Your task to perform on an android device: turn on wifi Image 0: 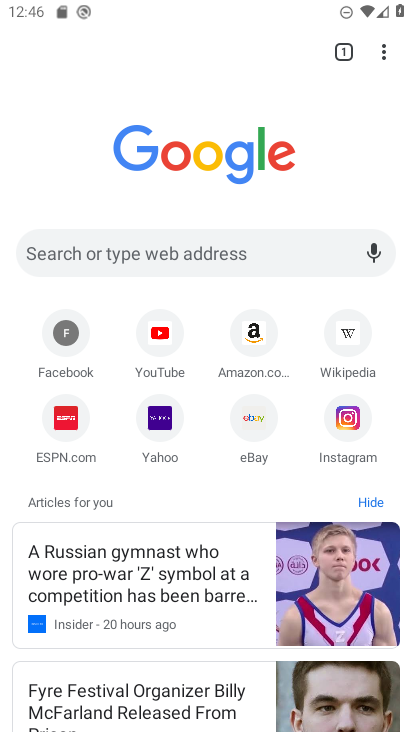
Step 0: press home button
Your task to perform on an android device: turn on wifi Image 1: 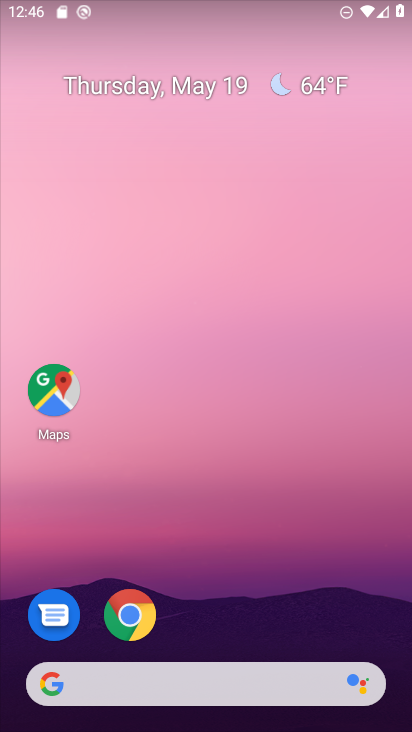
Step 1: drag from (228, 720) to (310, 80)
Your task to perform on an android device: turn on wifi Image 2: 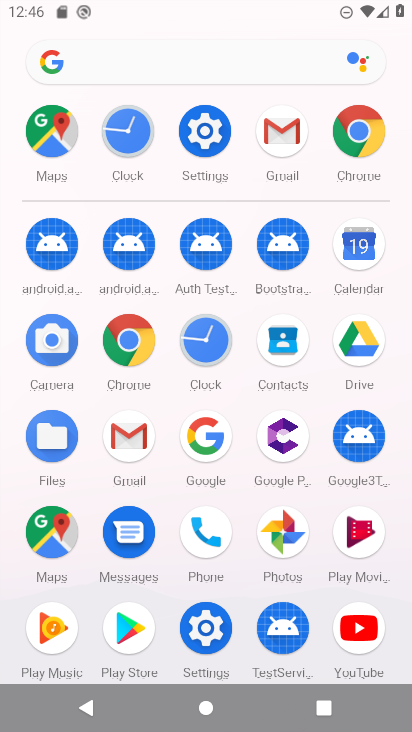
Step 2: click (214, 125)
Your task to perform on an android device: turn on wifi Image 3: 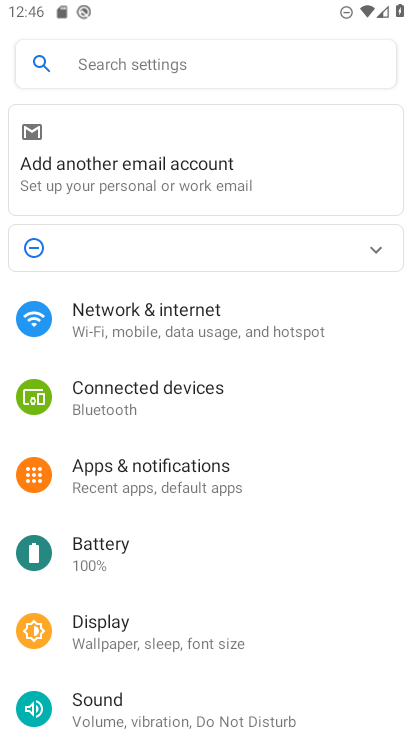
Step 3: click (144, 326)
Your task to perform on an android device: turn on wifi Image 4: 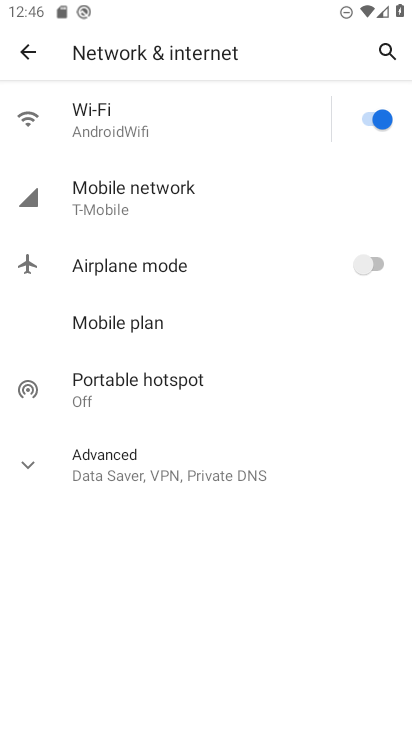
Step 4: click (133, 130)
Your task to perform on an android device: turn on wifi Image 5: 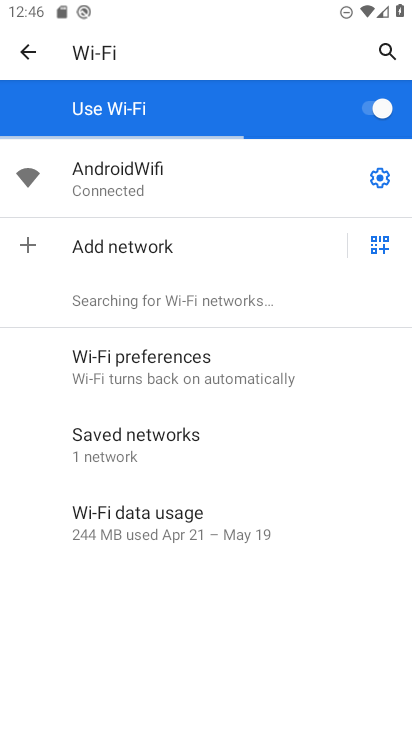
Step 5: click (378, 121)
Your task to perform on an android device: turn on wifi Image 6: 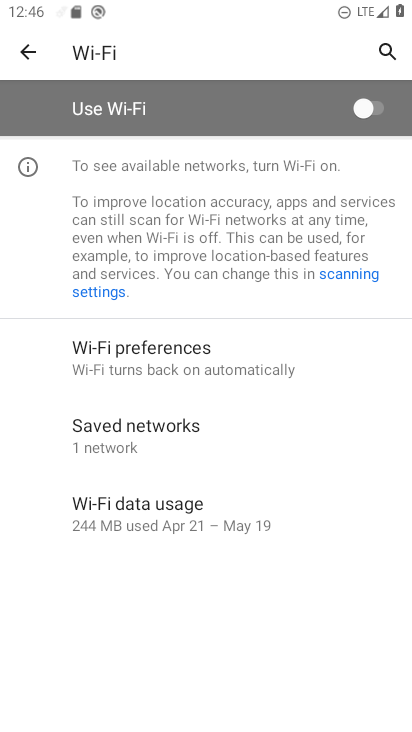
Step 6: click (378, 117)
Your task to perform on an android device: turn on wifi Image 7: 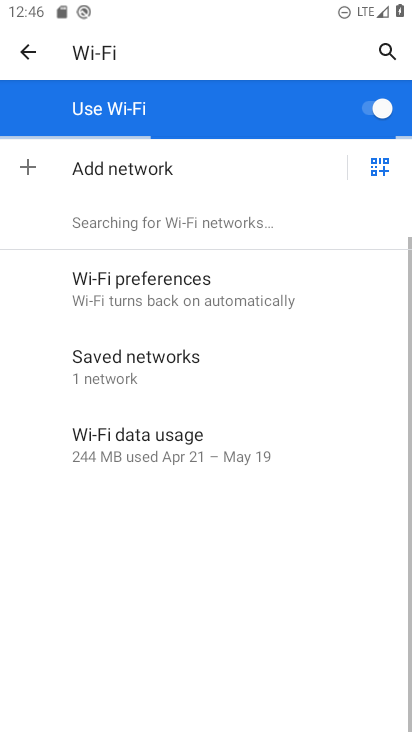
Step 7: task complete